Your task to perform on an android device: Open the map Image 0: 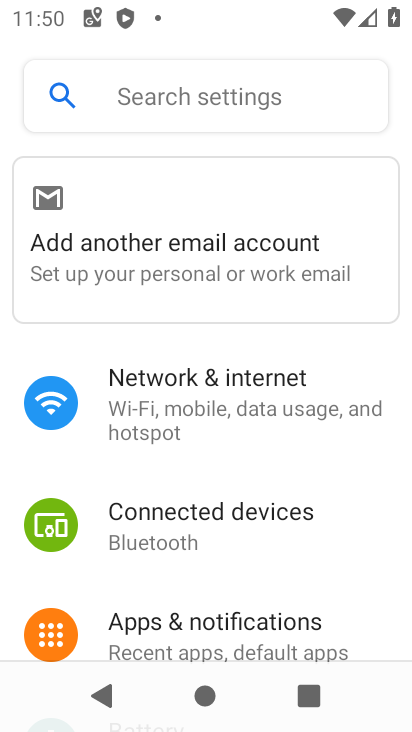
Step 0: press home button
Your task to perform on an android device: Open the map Image 1: 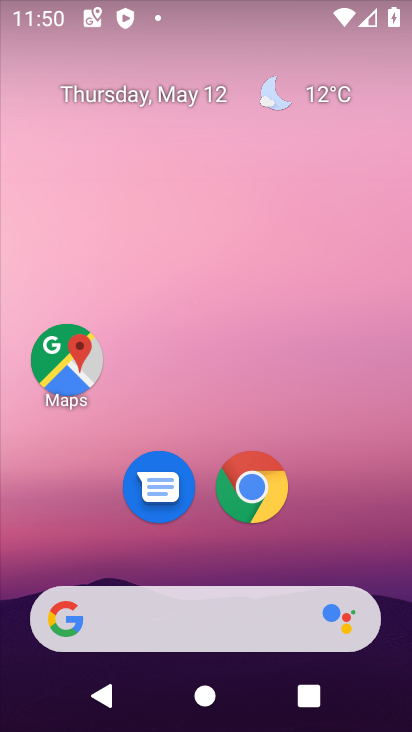
Step 1: click (63, 361)
Your task to perform on an android device: Open the map Image 2: 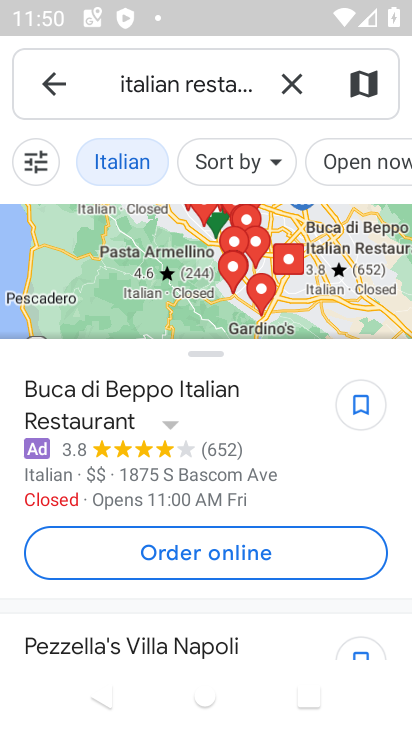
Step 2: task complete